Your task to perform on an android device: see sites visited before in the chrome app Image 0: 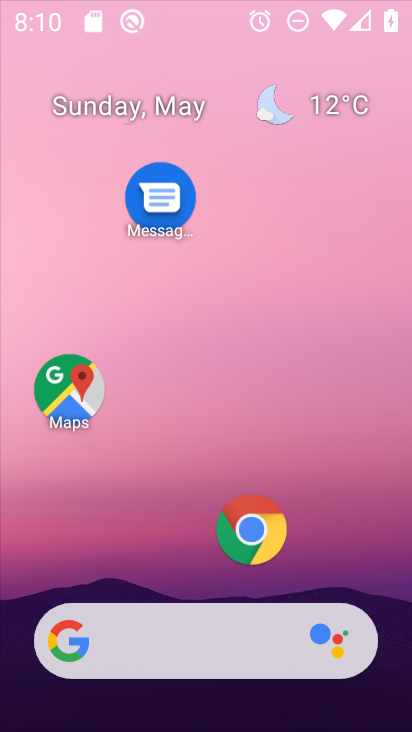
Step 0: press home button
Your task to perform on an android device: see sites visited before in the chrome app Image 1: 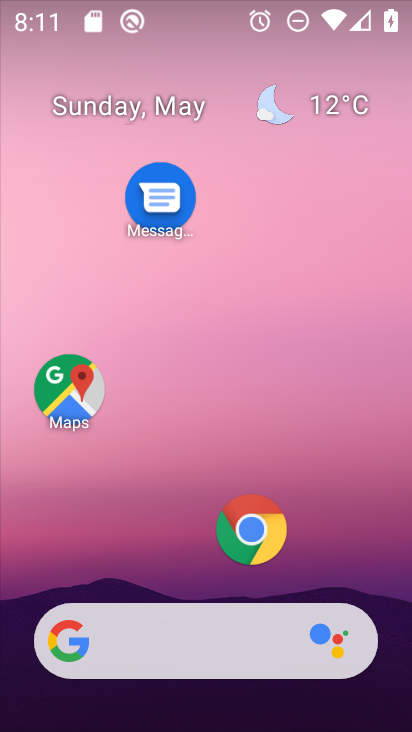
Step 1: click (247, 525)
Your task to perform on an android device: see sites visited before in the chrome app Image 2: 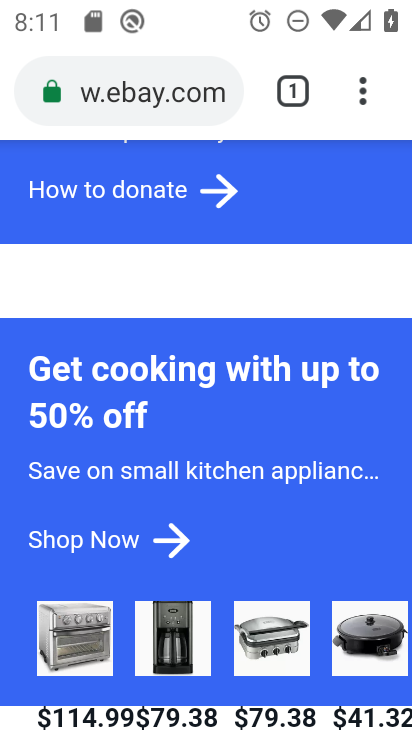
Step 2: click (360, 92)
Your task to perform on an android device: see sites visited before in the chrome app Image 3: 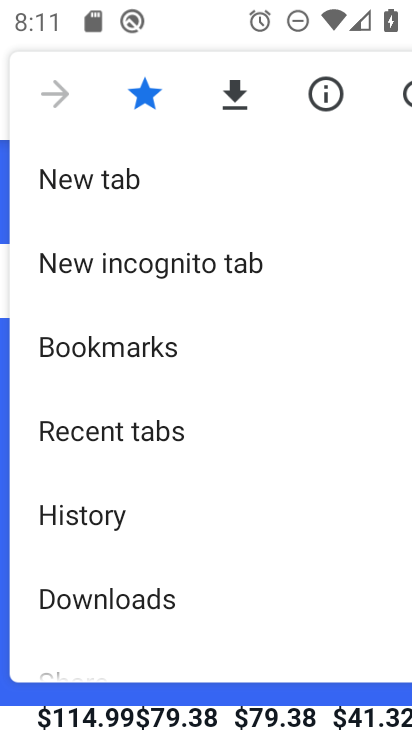
Step 3: click (150, 512)
Your task to perform on an android device: see sites visited before in the chrome app Image 4: 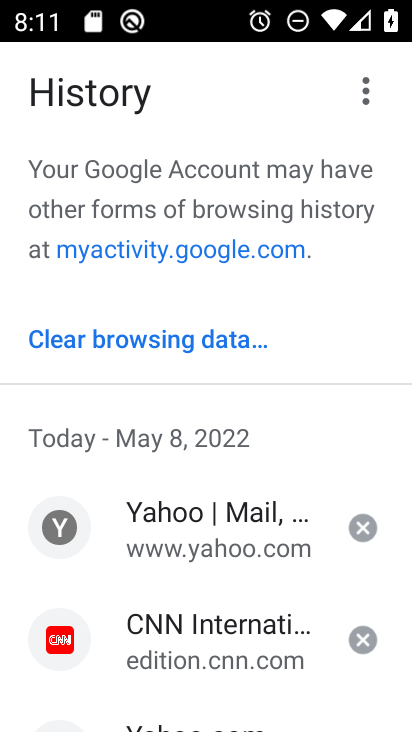
Step 4: task complete